Your task to perform on an android device: Go to display settings Image 0: 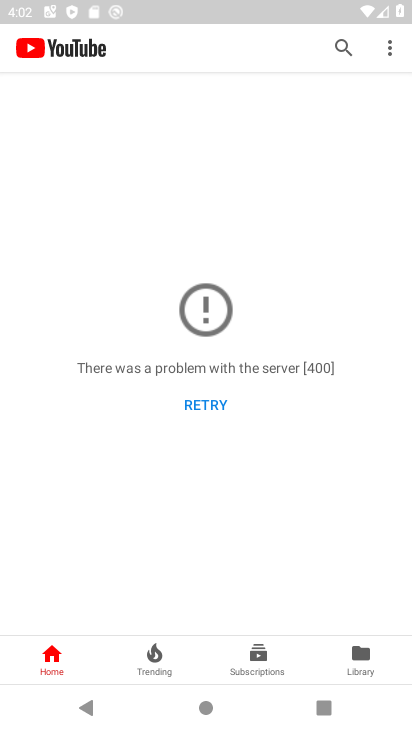
Step 0: press back button
Your task to perform on an android device: Go to display settings Image 1: 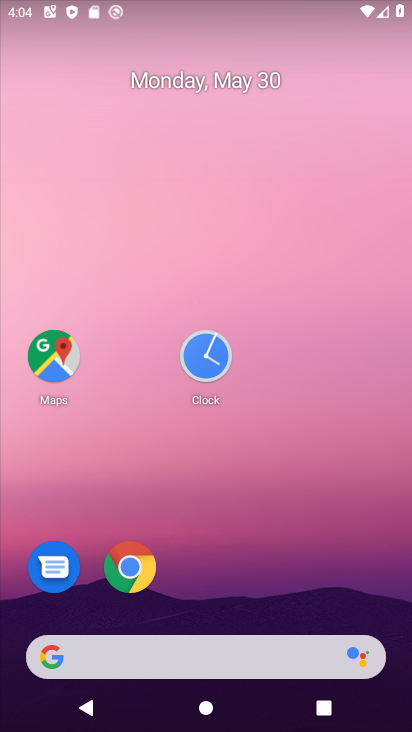
Step 1: drag from (207, 123) to (153, 94)
Your task to perform on an android device: Go to display settings Image 2: 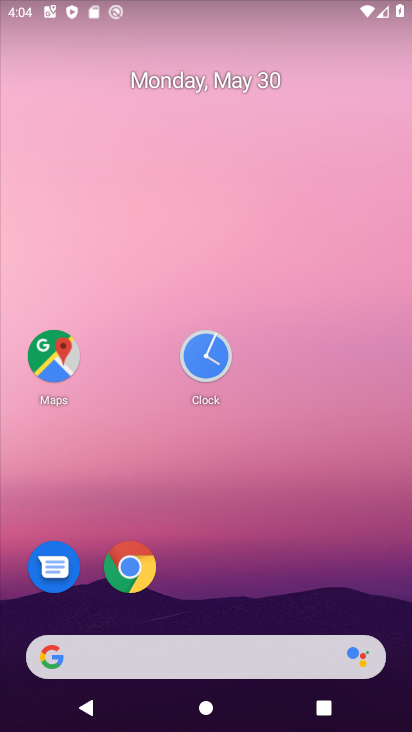
Step 2: drag from (262, 494) to (203, 131)
Your task to perform on an android device: Go to display settings Image 3: 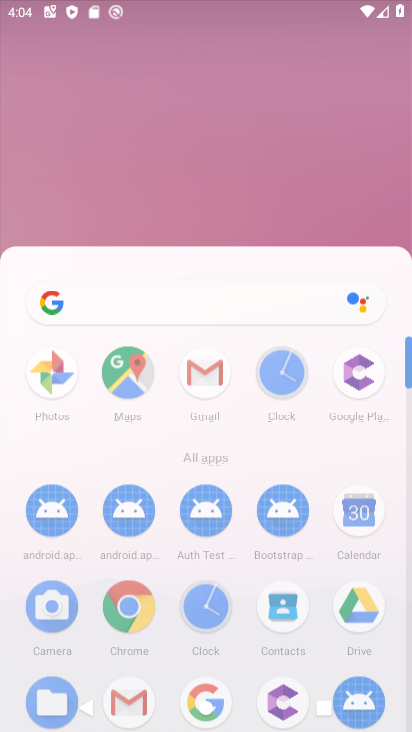
Step 3: drag from (265, 590) to (184, 110)
Your task to perform on an android device: Go to display settings Image 4: 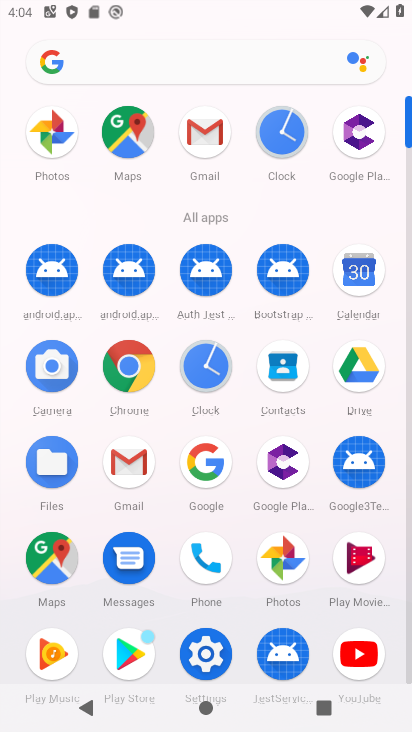
Step 4: drag from (237, 570) to (166, 66)
Your task to perform on an android device: Go to display settings Image 5: 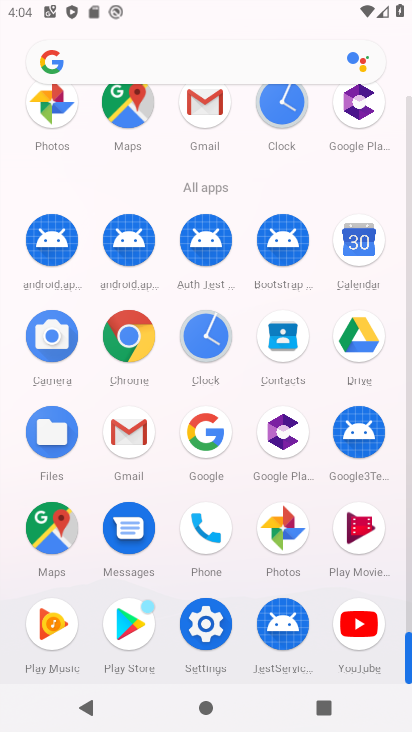
Step 5: click (200, 626)
Your task to perform on an android device: Go to display settings Image 6: 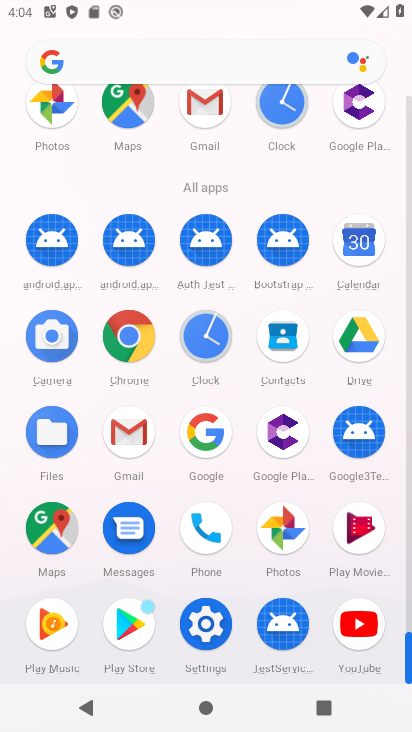
Step 6: click (199, 624)
Your task to perform on an android device: Go to display settings Image 7: 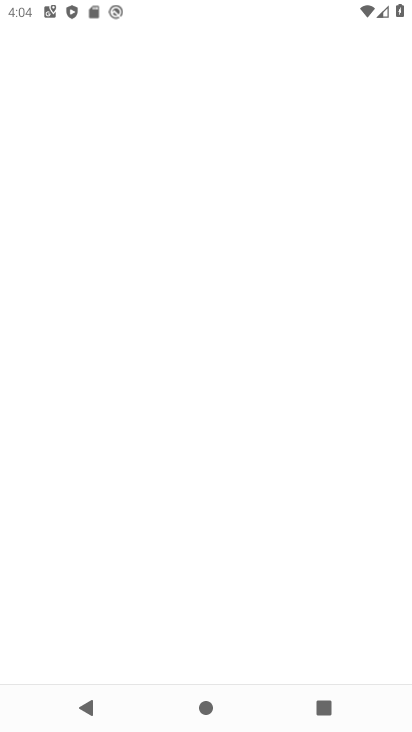
Step 7: click (201, 629)
Your task to perform on an android device: Go to display settings Image 8: 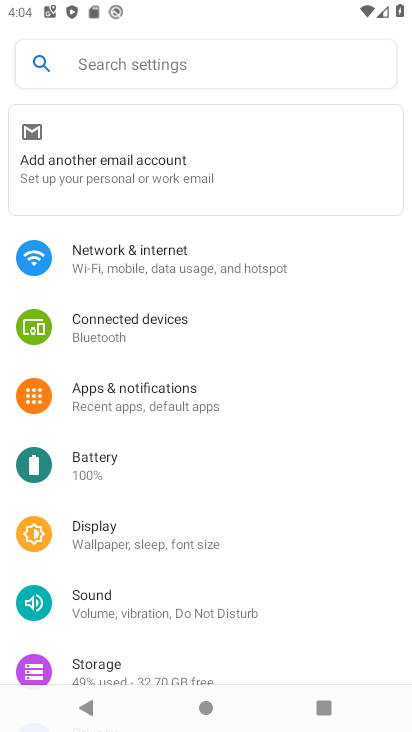
Step 8: click (104, 525)
Your task to perform on an android device: Go to display settings Image 9: 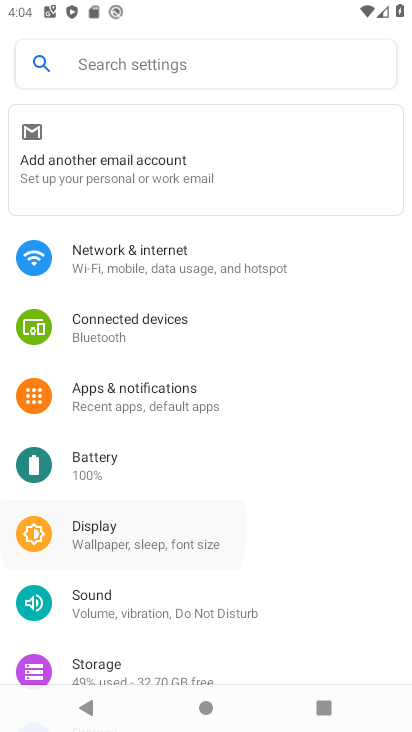
Step 9: click (100, 522)
Your task to perform on an android device: Go to display settings Image 10: 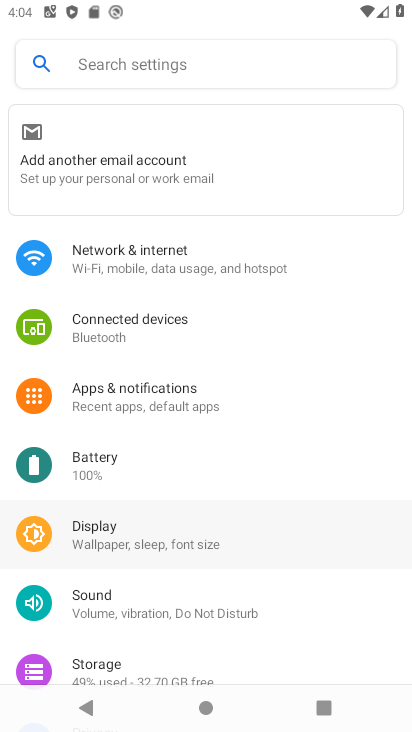
Step 10: click (100, 522)
Your task to perform on an android device: Go to display settings Image 11: 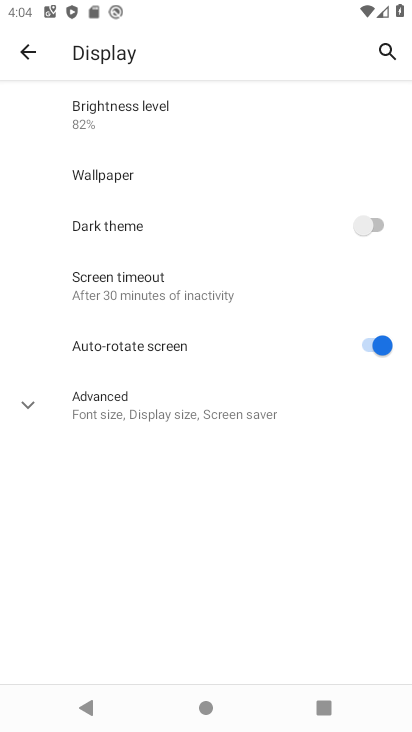
Step 11: click (113, 401)
Your task to perform on an android device: Go to display settings Image 12: 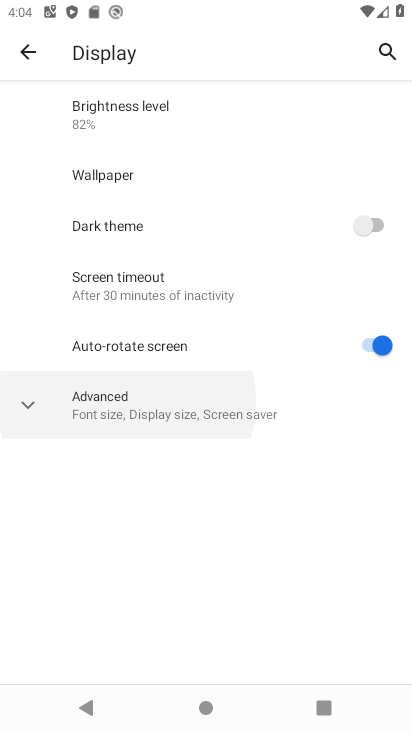
Step 12: click (111, 397)
Your task to perform on an android device: Go to display settings Image 13: 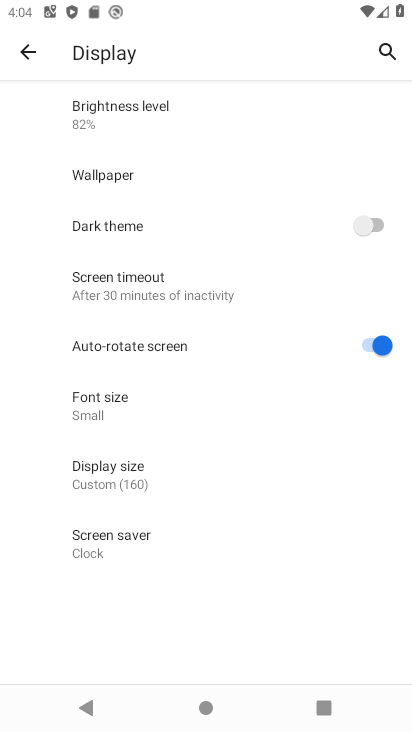
Step 13: click (107, 397)
Your task to perform on an android device: Go to display settings Image 14: 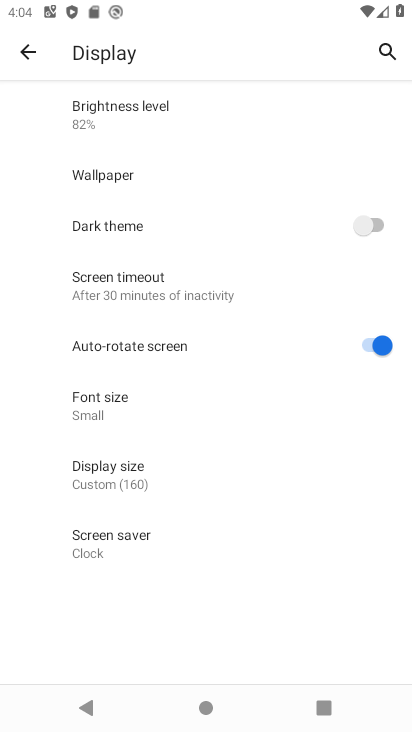
Step 14: click (106, 397)
Your task to perform on an android device: Go to display settings Image 15: 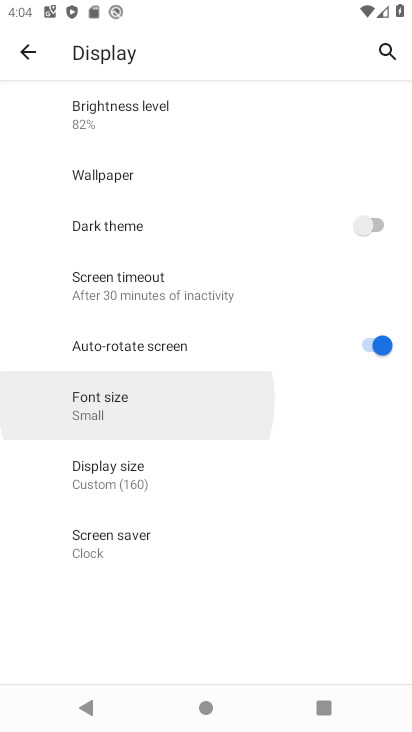
Step 15: click (105, 397)
Your task to perform on an android device: Go to display settings Image 16: 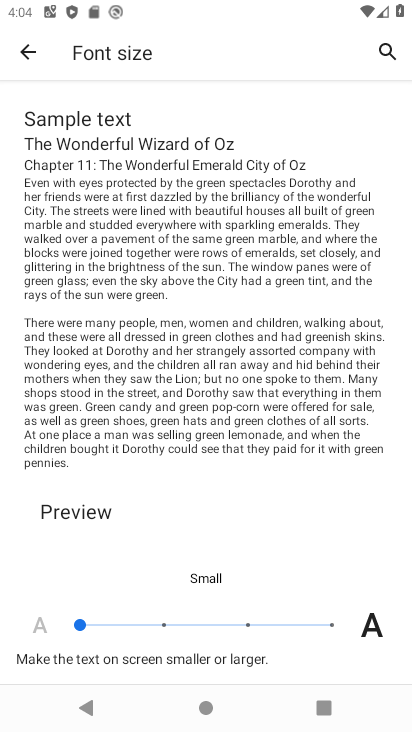
Step 16: click (19, 59)
Your task to perform on an android device: Go to display settings Image 17: 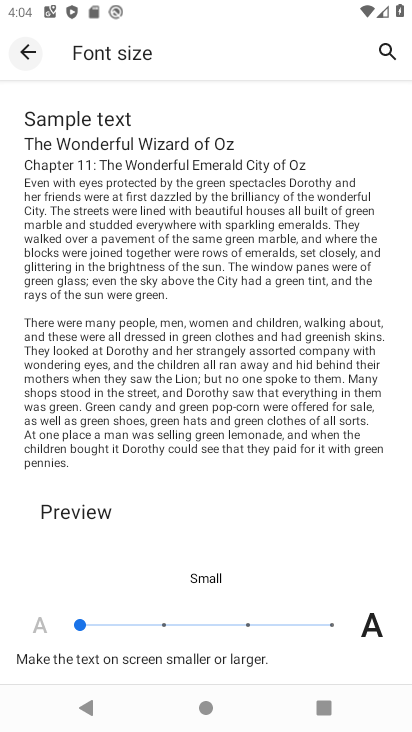
Step 17: click (19, 59)
Your task to perform on an android device: Go to display settings Image 18: 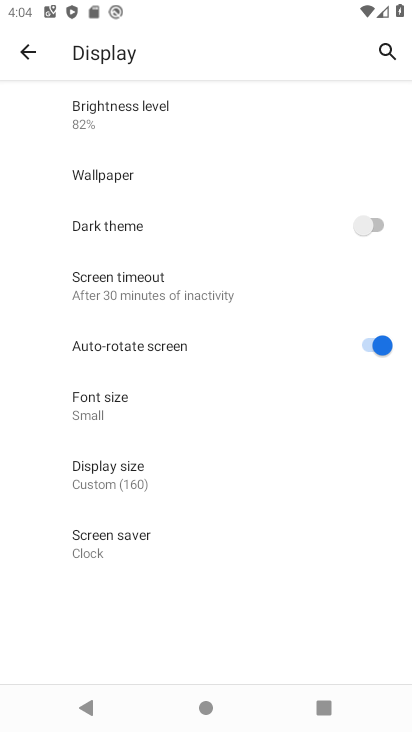
Step 18: task complete